Your task to perform on an android device: Go to location settings Image 0: 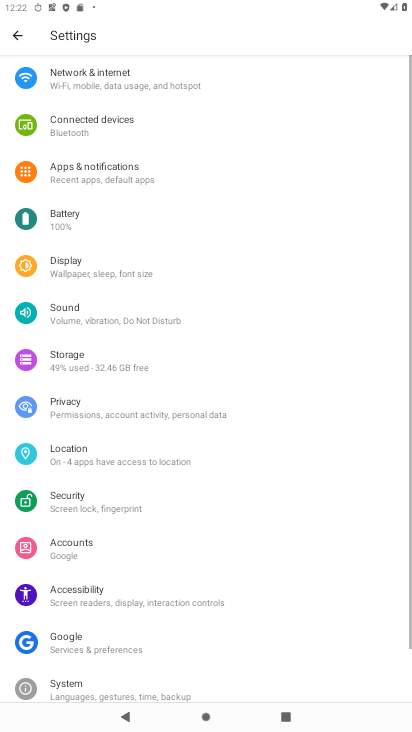
Step 0: press home button
Your task to perform on an android device: Go to location settings Image 1: 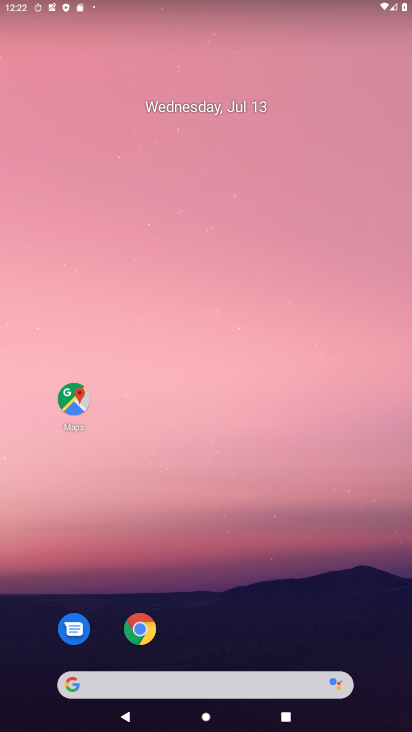
Step 1: drag from (201, 606) to (170, 164)
Your task to perform on an android device: Go to location settings Image 2: 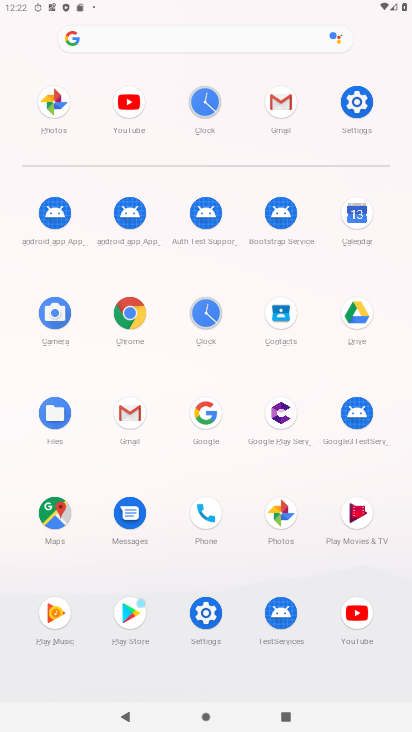
Step 2: click (349, 106)
Your task to perform on an android device: Go to location settings Image 3: 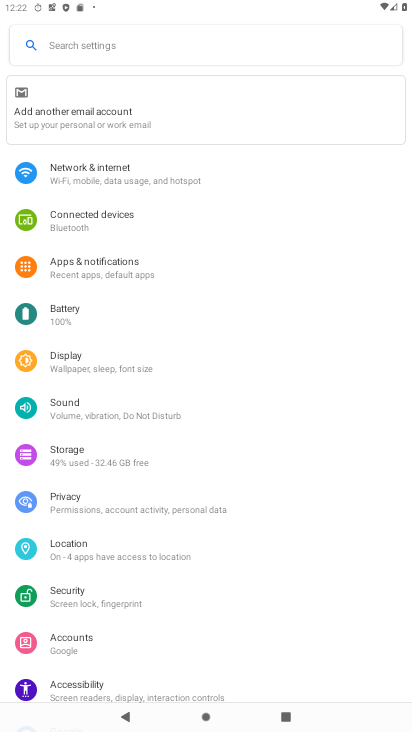
Step 3: click (92, 532)
Your task to perform on an android device: Go to location settings Image 4: 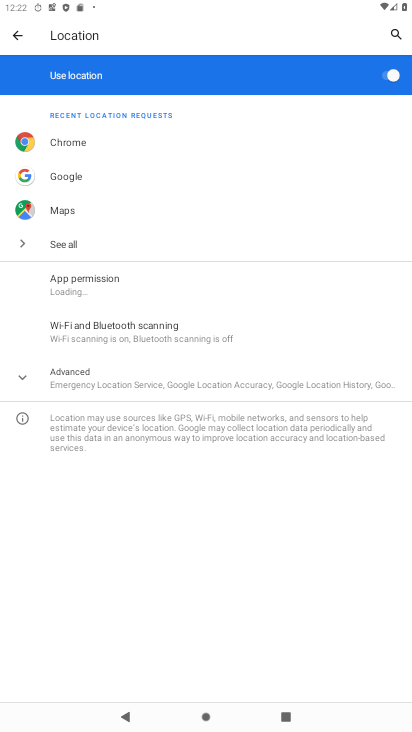
Step 4: task complete